Your task to perform on an android device: Open settings Image 0: 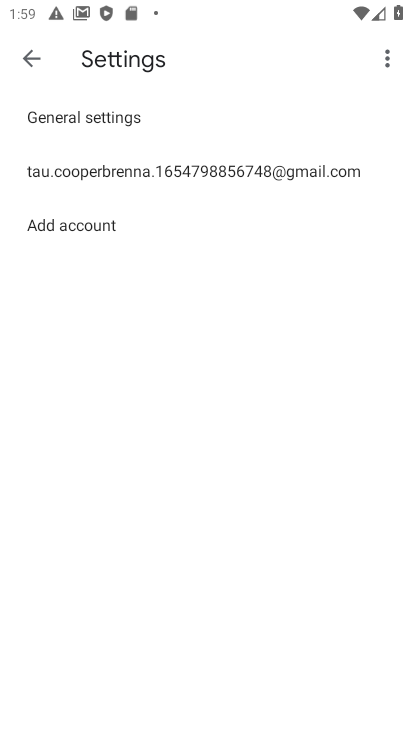
Step 0: press home button
Your task to perform on an android device: Open settings Image 1: 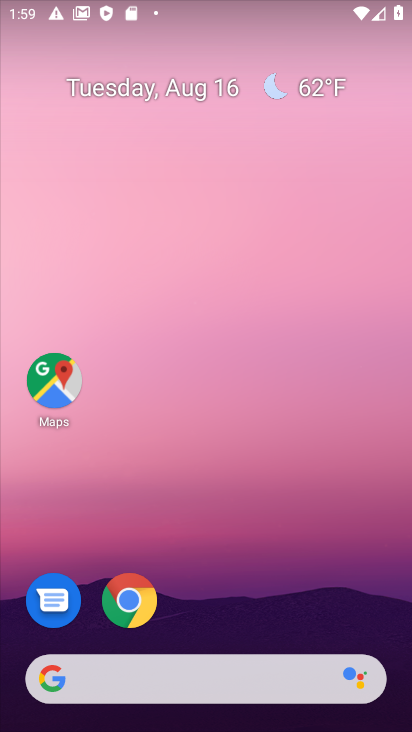
Step 1: drag from (221, 684) to (206, 28)
Your task to perform on an android device: Open settings Image 2: 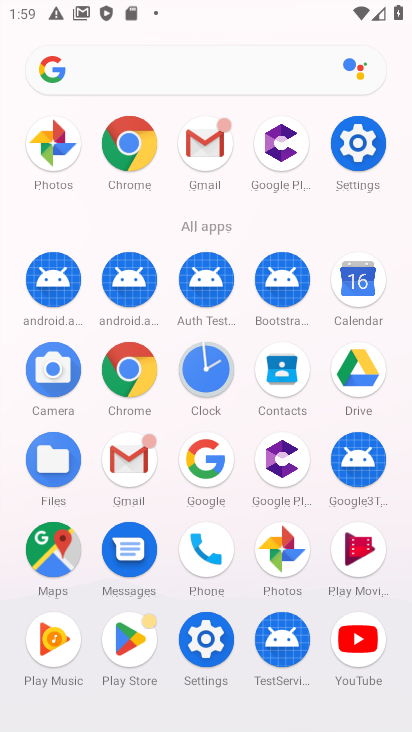
Step 2: click (341, 153)
Your task to perform on an android device: Open settings Image 3: 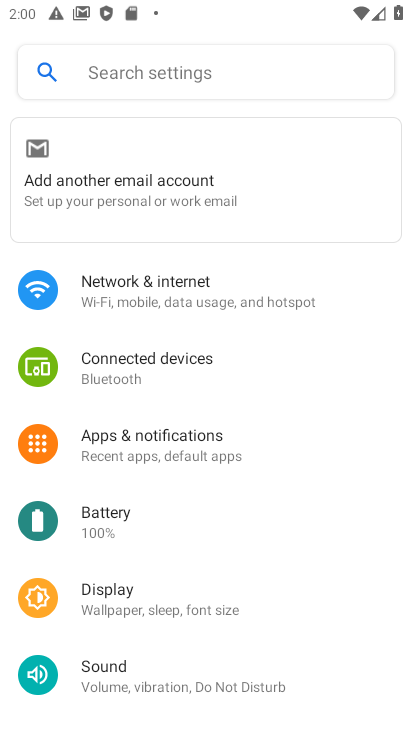
Step 3: task complete